Your task to perform on an android device: Check the weather Image 0: 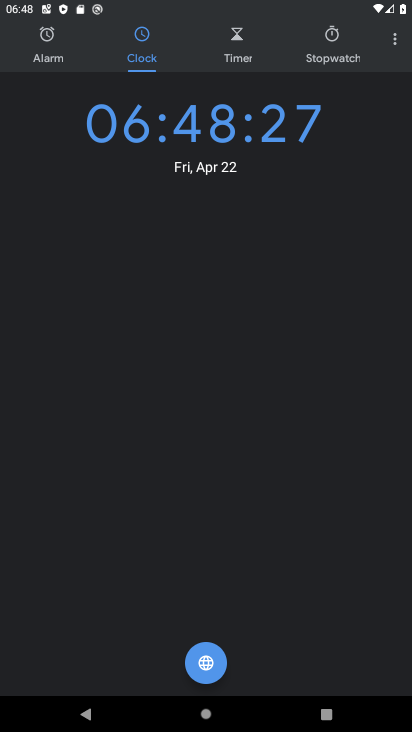
Step 0: press home button
Your task to perform on an android device: Check the weather Image 1: 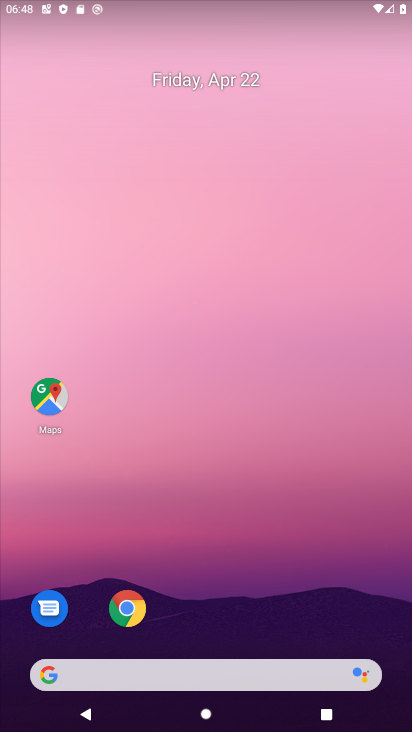
Step 1: drag from (246, 621) to (176, 198)
Your task to perform on an android device: Check the weather Image 2: 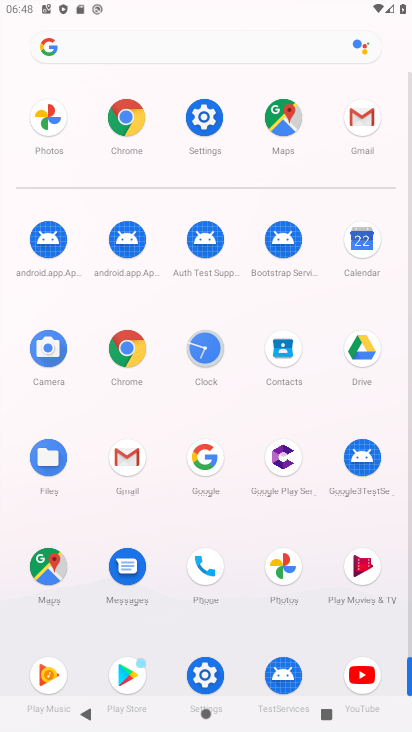
Step 2: click (208, 471)
Your task to perform on an android device: Check the weather Image 3: 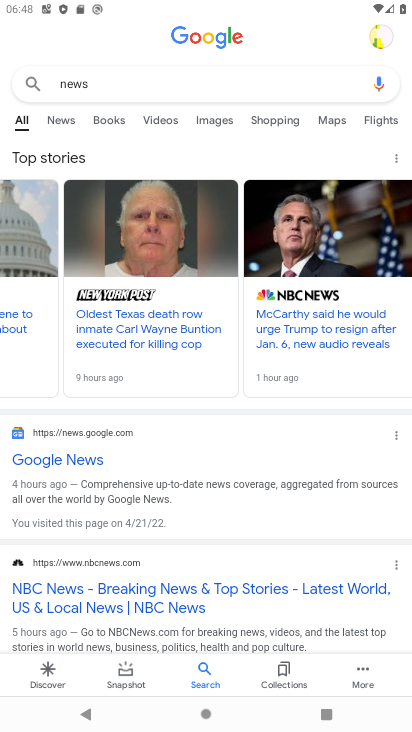
Step 3: click (112, 80)
Your task to perform on an android device: Check the weather Image 4: 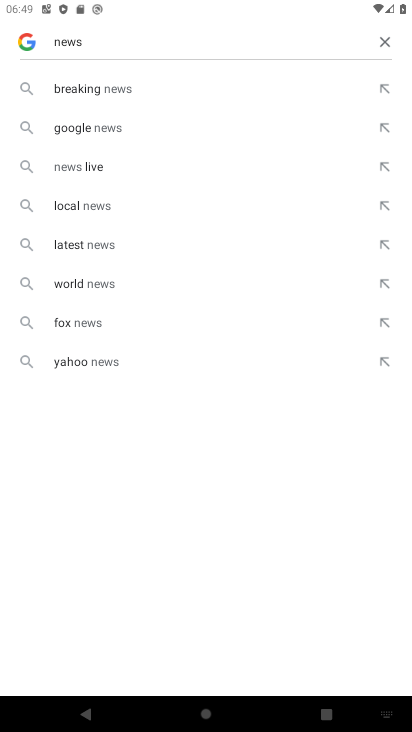
Step 4: click (391, 42)
Your task to perform on an android device: Check the weather Image 5: 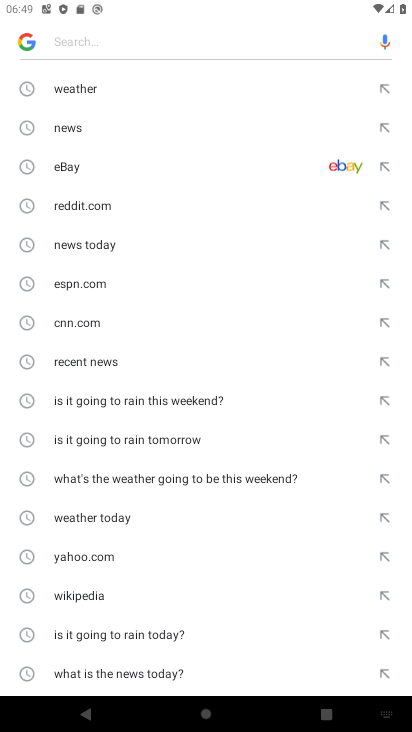
Step 5: click (74, 87)
Your task to perform on an android device: Check the weather Image 6: 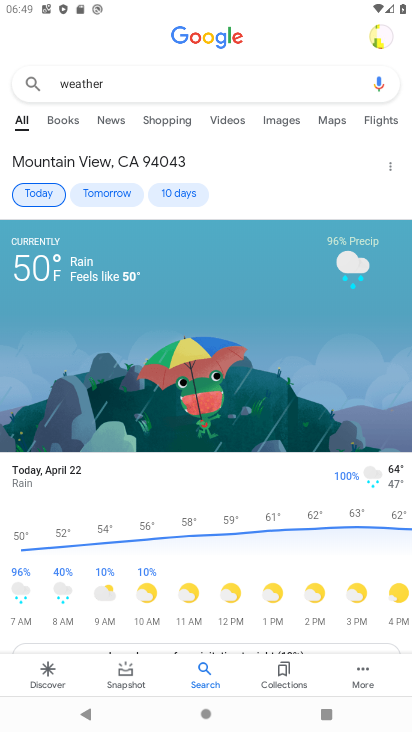
Step 6: task complete